Your task to perform on an android device: Search for a 100 ft extension cord Image 0: 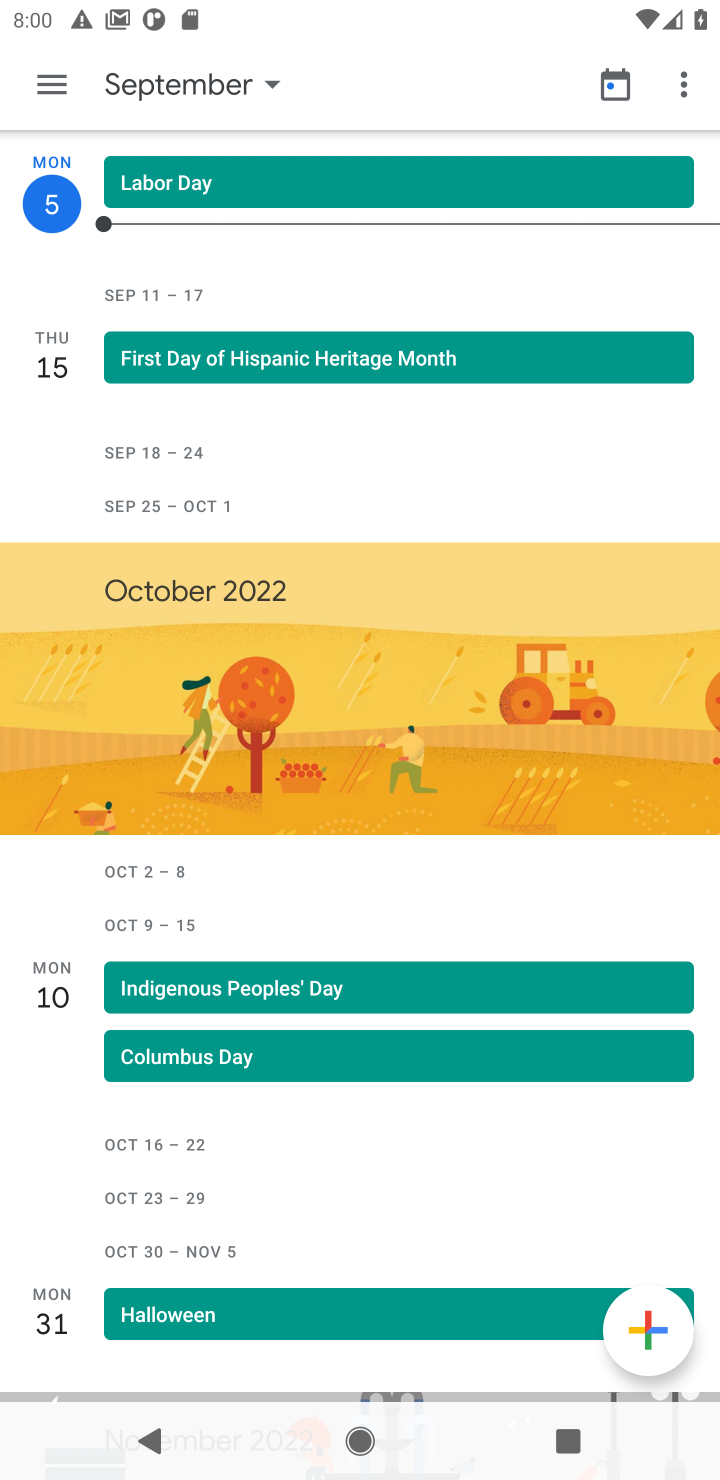
Step 0: press home button
Your task to perform on an android device: Search for a 100 ft extension cord Image 1: 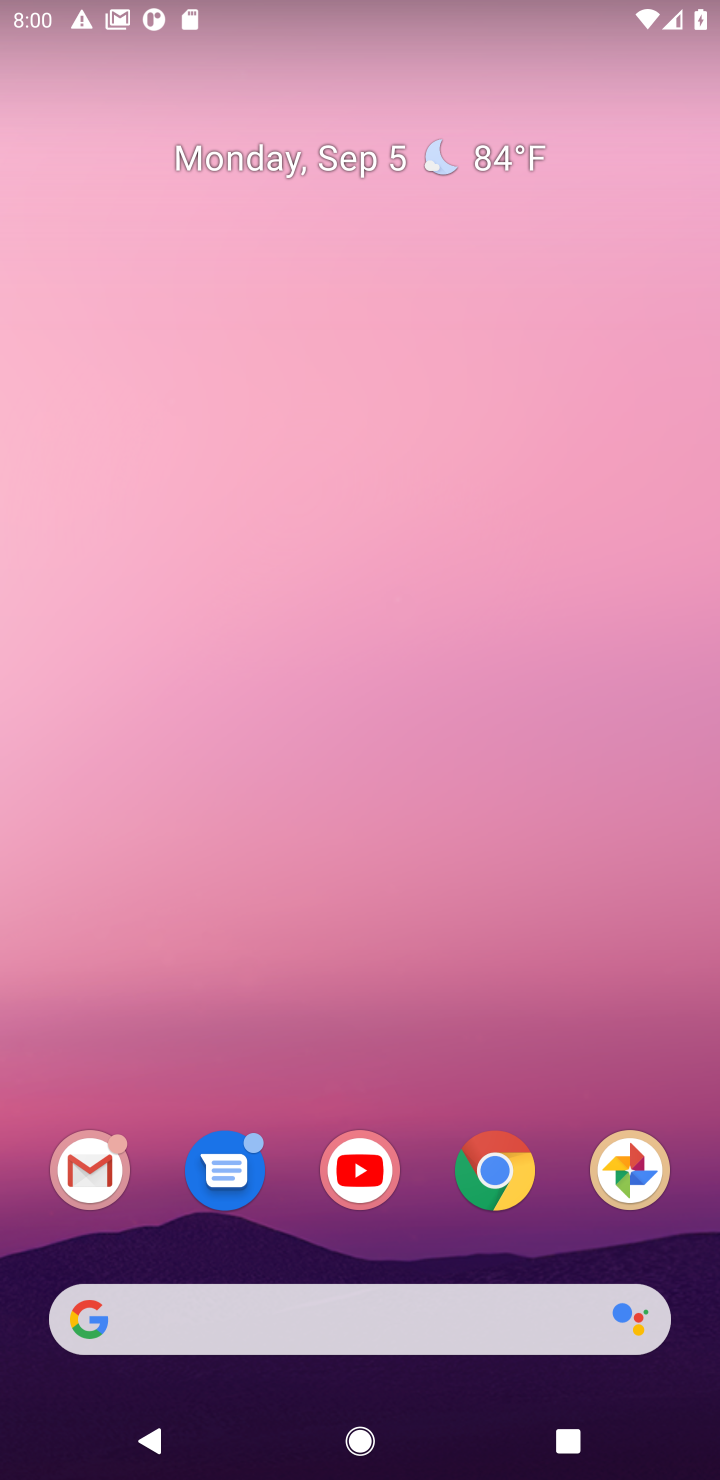
Step 1: click (506, 1193)
Your task to perform on an android device: Search for a 100 ft extension cord Image 2: 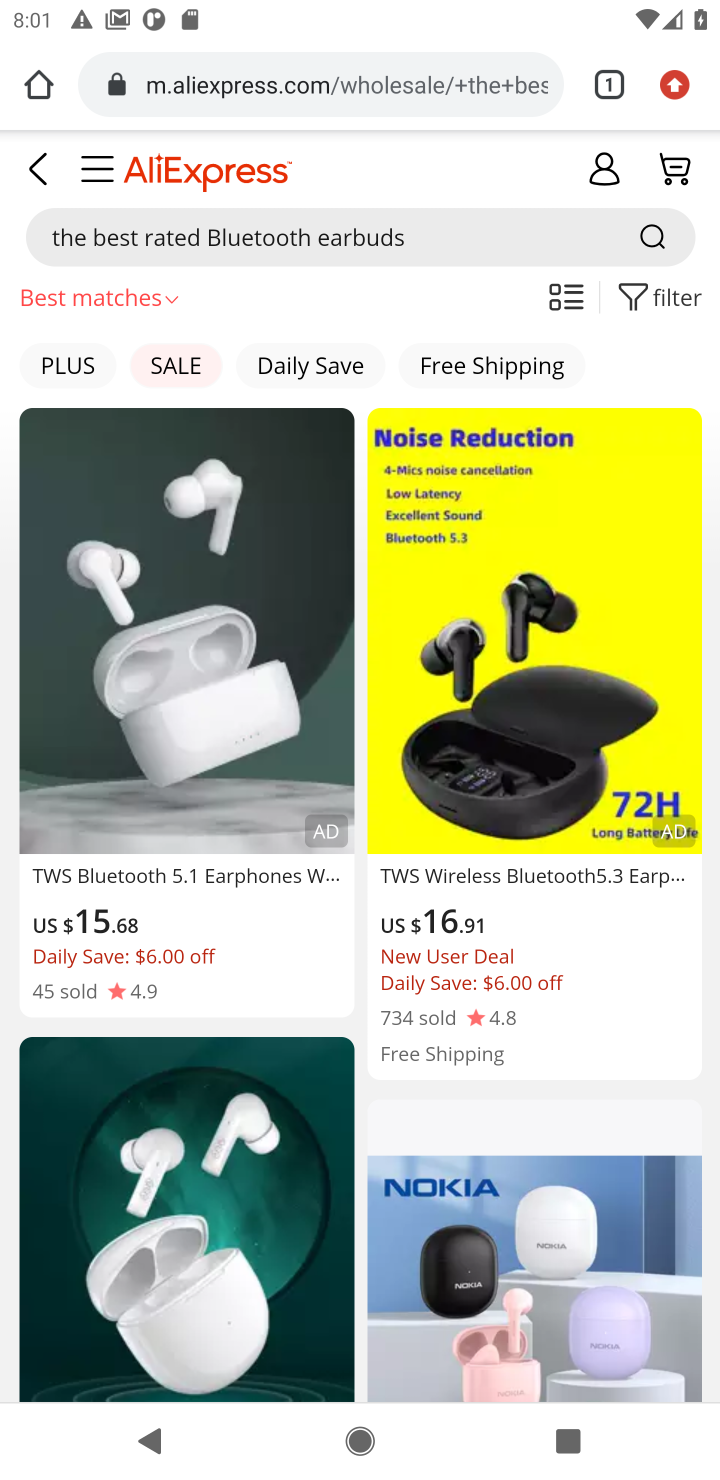
Step 2: click (340, 76)
Your task to perform on an android device: Search for a 100 ft extension cord Image 3: 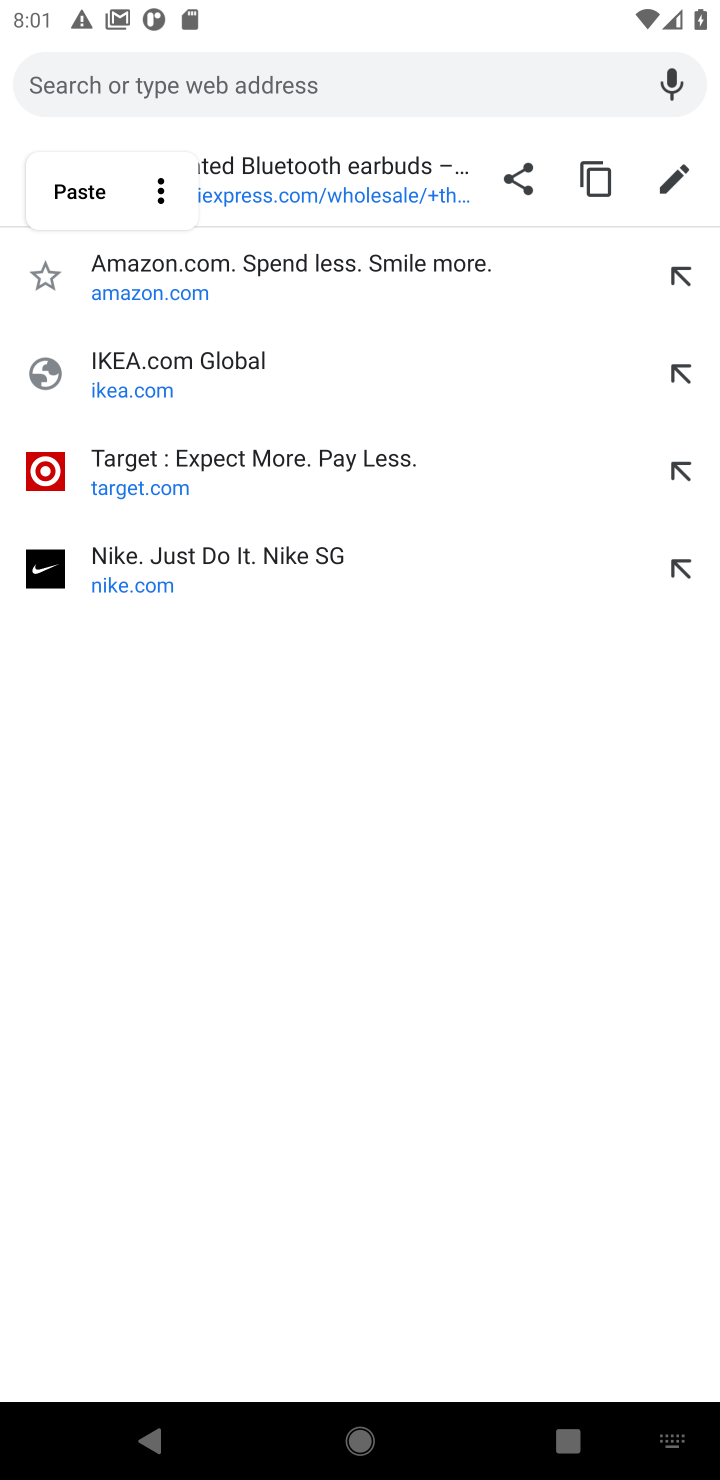
Step 3: type "a 100 ft extension cord"
Your task to perform on an android device: Search for a 100 ft extension cord Image 4: 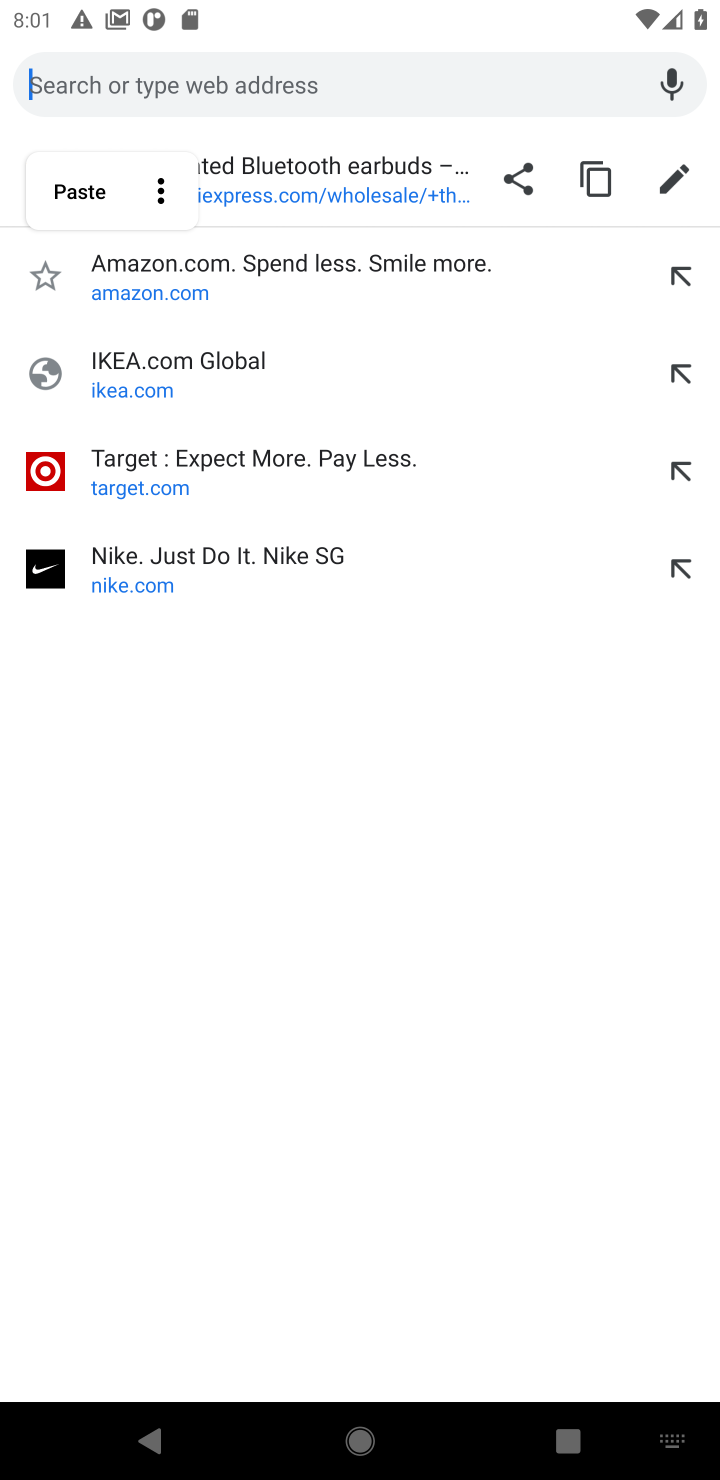
Step 4: click (300, 88)
Your task to perform on an android device: Search for a 100 ft extension cord Image 5: 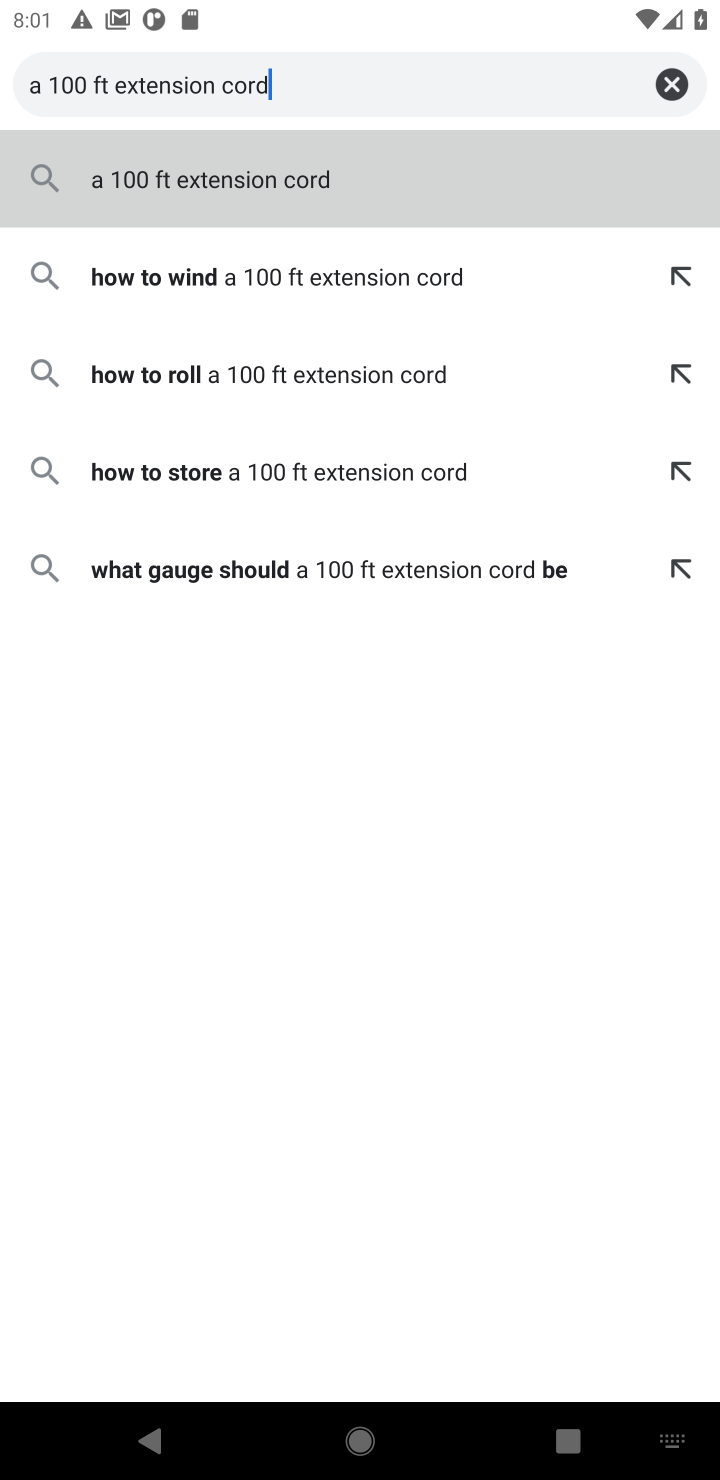
Step 5: click (331, 179)
Your task to perform on an android device: Search for a 100 ft extension cord Image 6: 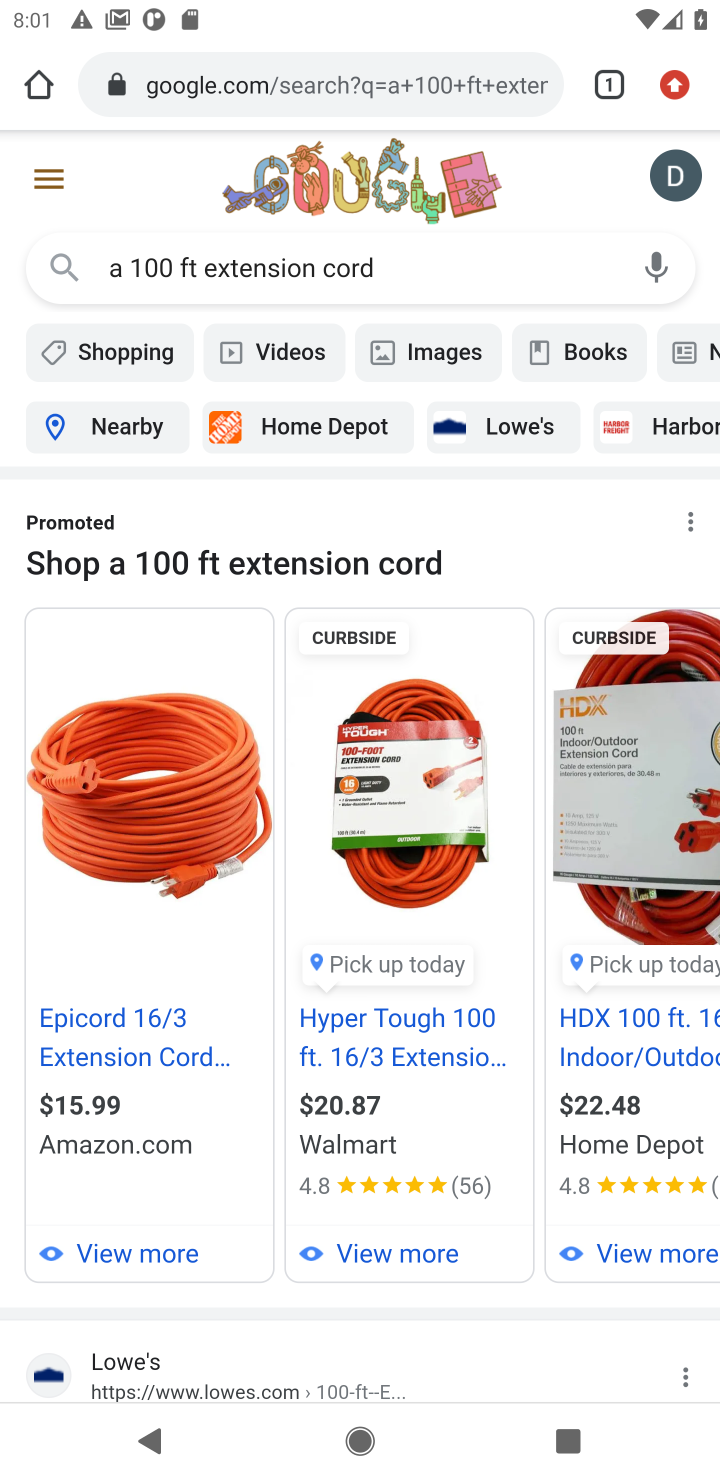
Step 6: task complete